Your task to perform on an android device: Go to privacy settings Image 0: 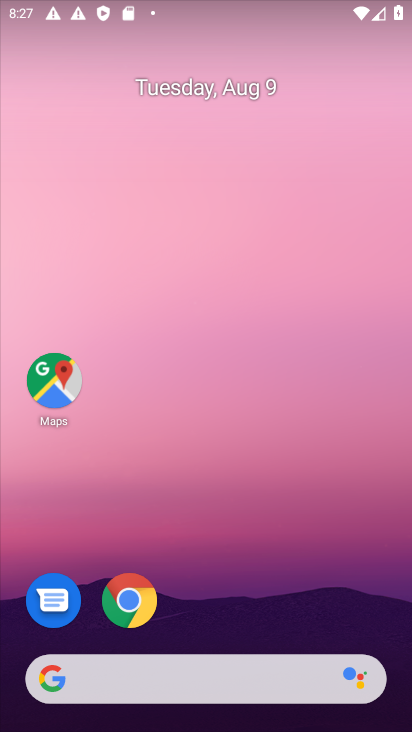
Step 0: press home button
Your task to perform on an android device: Go to privacy settings Image 1: 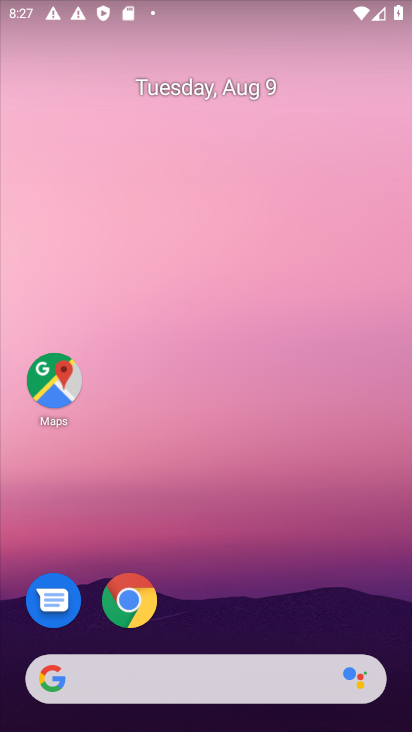
Step 1: drag from (231, 639) to (253, 174)
Your task to perform on an android device: Go to privacy settings Image 2: 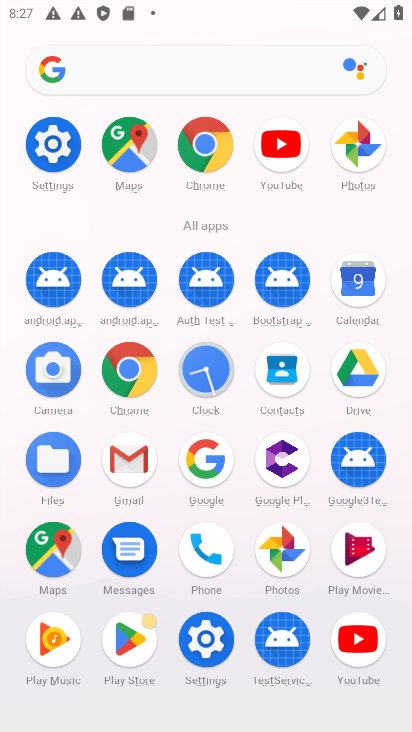
Step 2: click (57, 154)
Your task to perform on an android device: Go to privacy settings Image 3: 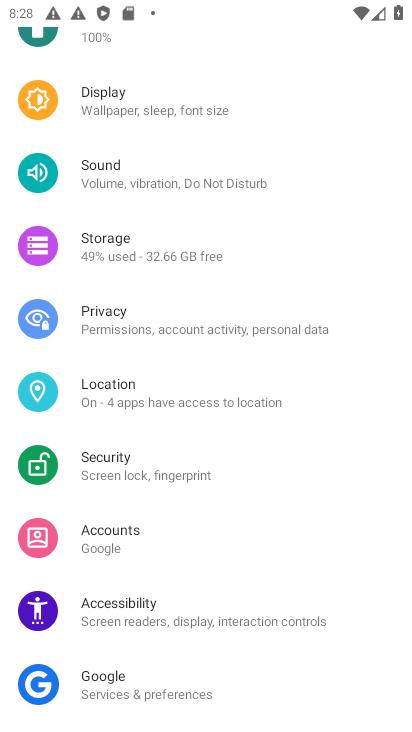
Step 3: click (105, 327)
Your task to perform on an android device: Go to privacy settings Image 4: 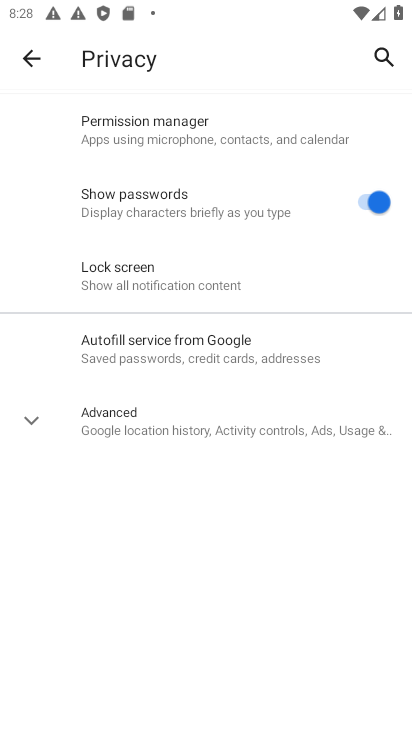
Step 4: task complete